Your task to perform on an android device: change text size in settings app Image 0: 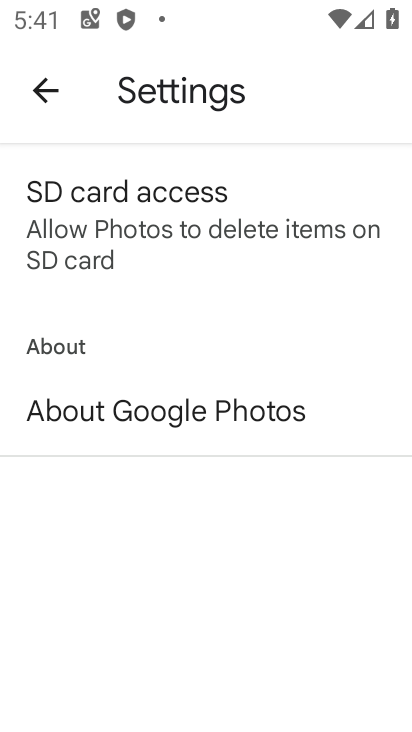
Step 0: press home button
Your task to perform on an android device: change text size in settings app Image 1: 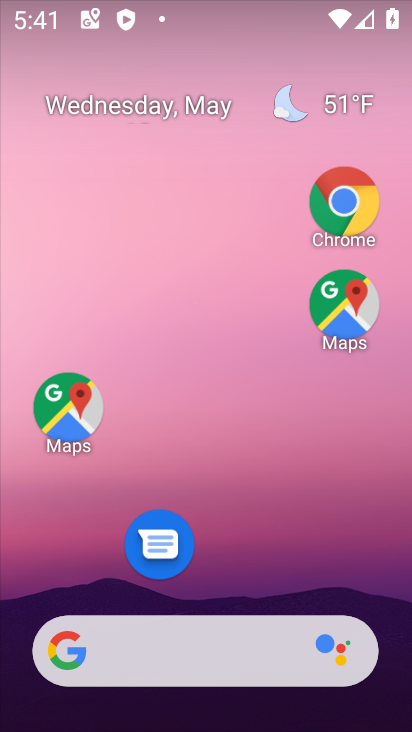
Step 1: drag from (214, 511) to (147, 101)
Your task to perform on an android device: change text size in settings app Image 2: 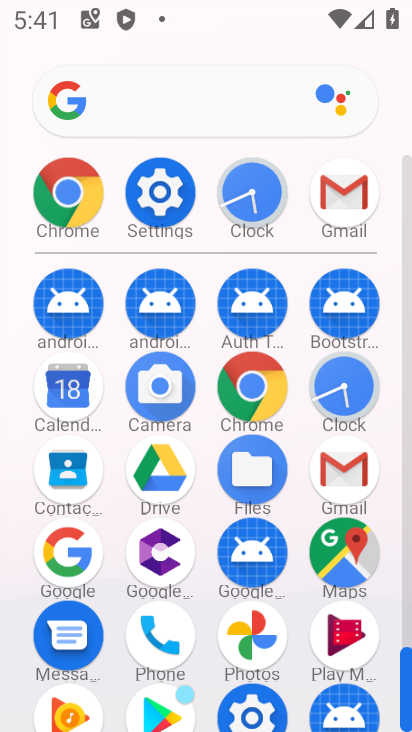
Step 2: click (163, 191)
Your task to perform on an android device: change text size in settings app Image 3: 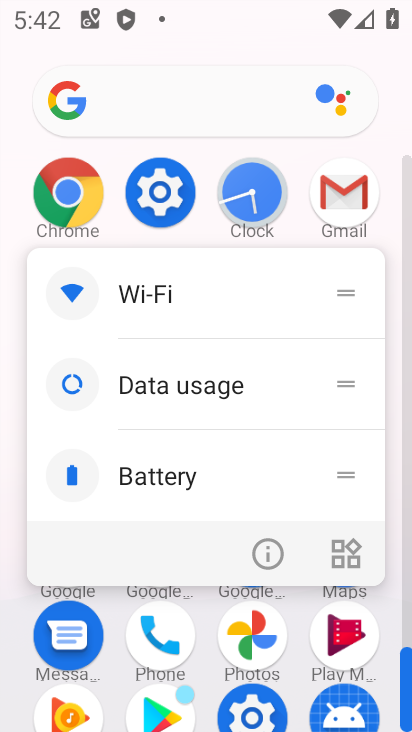
Step 3: click (144, 177)
Your task to perform on an android device: change text size in settings app Image 4: 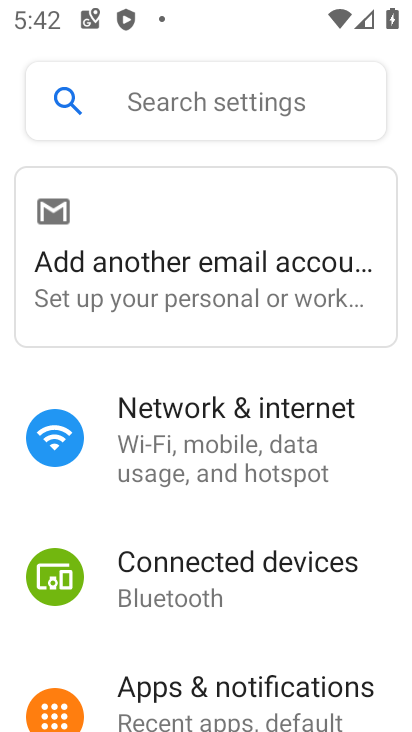
Step 4: drag from (221, 612) to (158, 202)
Your task to perform on an android device: change text size in settings app Image 5: 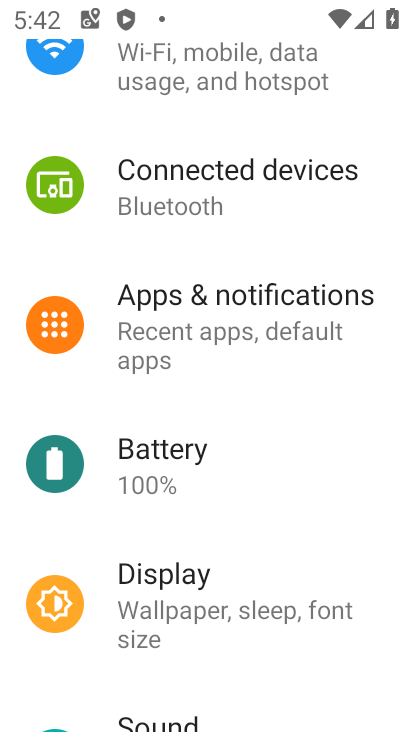
Step 5: click (168, 605)
Your task to perform on an android device: change text size in settings app Image 6: 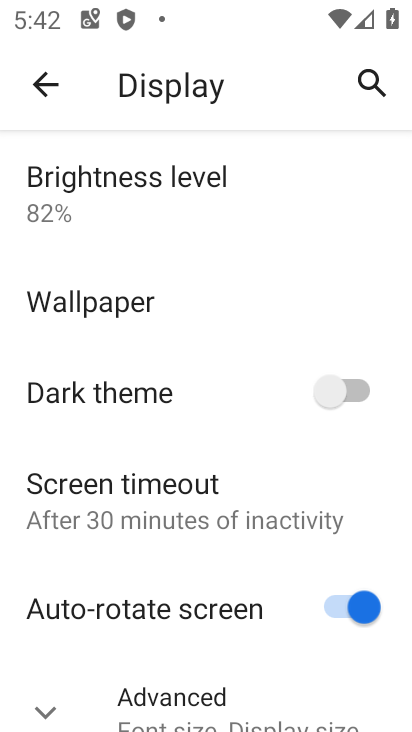
Step 6: drag from (149, 638) to (127, 335)
Your task to perform on an android device: change text size in settings app Image 7: 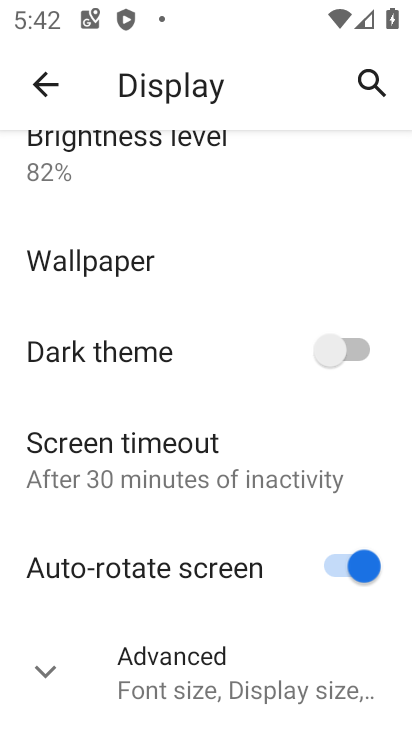
Step 7: click (162, 691)
Your task to perform on an android device: change text size in settings app Image 8: 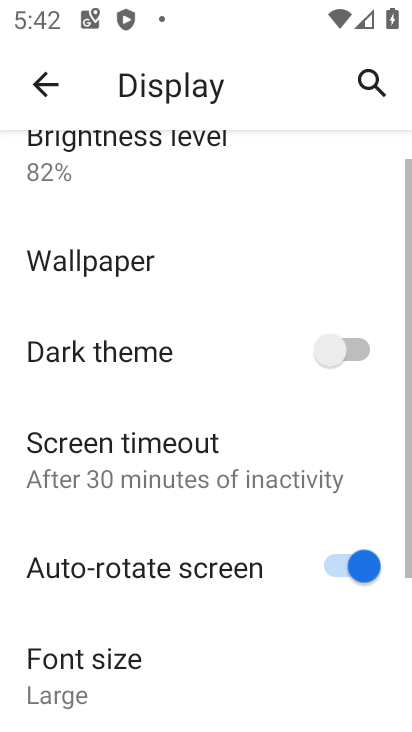
Step 8: drag from (167, 677) to (140, 455)
Your task to perform on an android device: change text size in settings app Image 9: 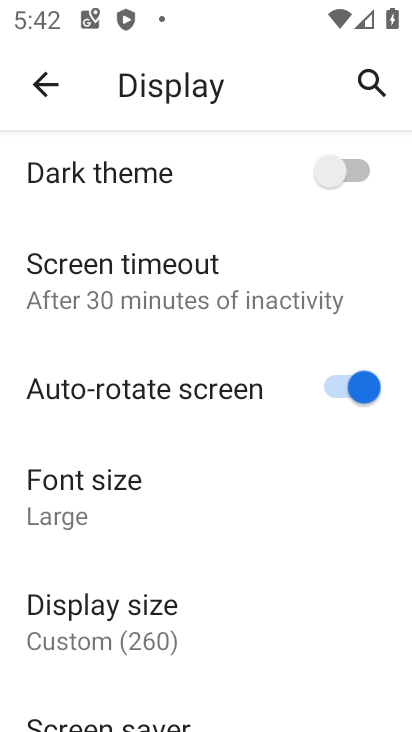
Step 9: click (71, 527)
Your task to perform on an android device: change text size in settings app Image 10: 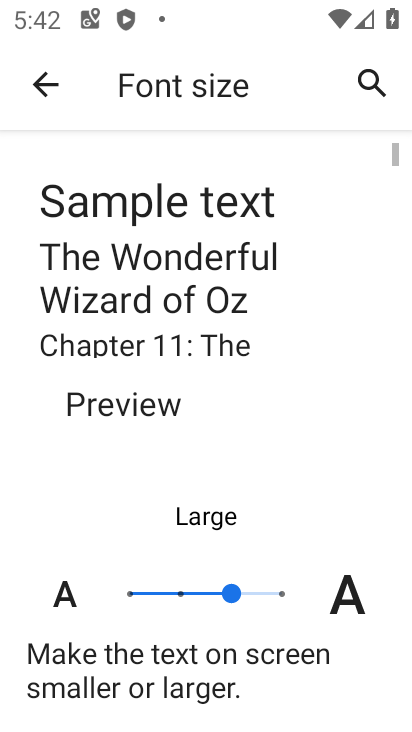
Step 10: click (180, 587)
Your task to perform on an android device: change text size in settings app Image 11: 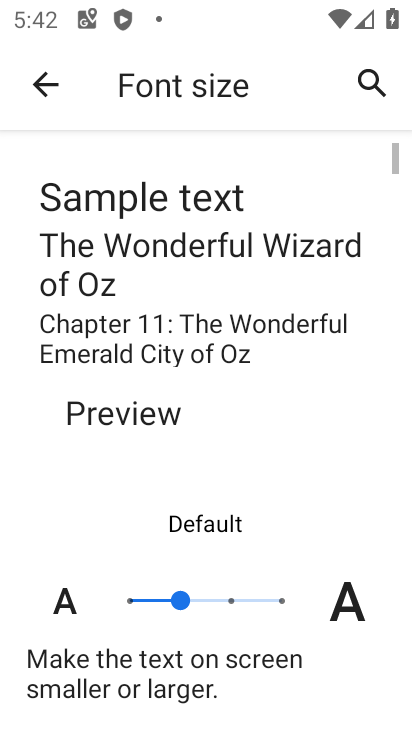
Step 11: task complete